Your task to perform on an android device: remove spam from my inbox in the gmail app Image 0: 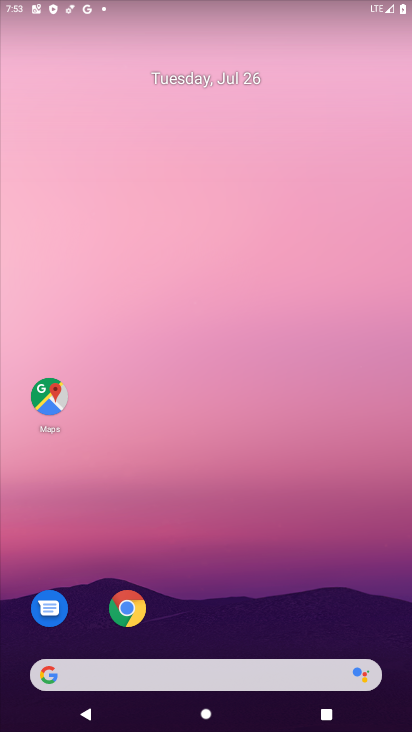
Step 0: drag from (331, 597) to (324, 267)
Your task to perform on an android device: remove spam from my inbox in the gmail app Image 1: 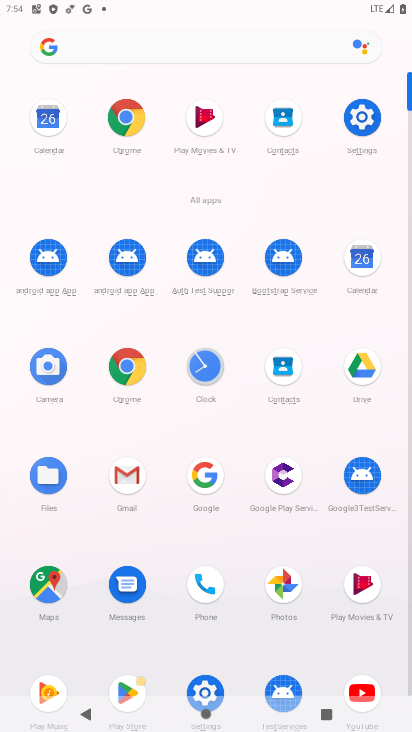
Step 1: click (123, 497)
Your task to perform on an android device: remove spam from my inbox in the gmail app Image 2: 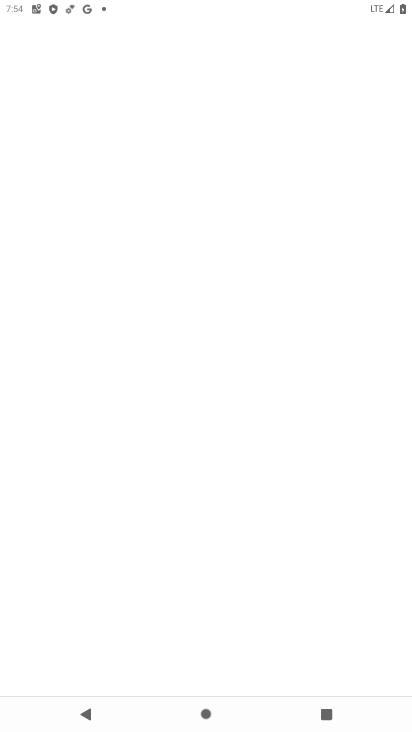
Step 2: click (125, 471)
Your task to perform on an android device: remove spam from my inbox in the gmail app Image 3: 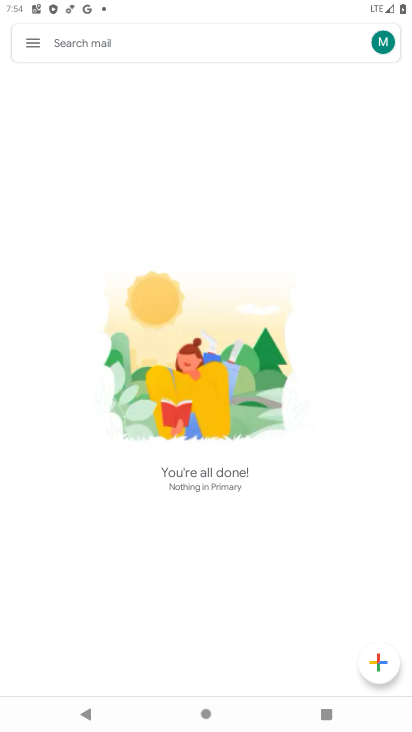
Step 3: press back button
Your task to perform on an android device: remove spam from my inbox in the gmail app Image 4: 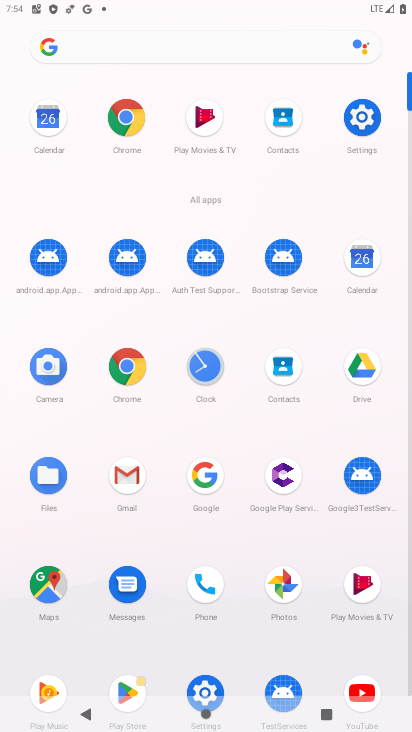
Step 4: click (125, 478)
Your task to perform on an android device: remove spam from my inbox in the gmail app Image 5: 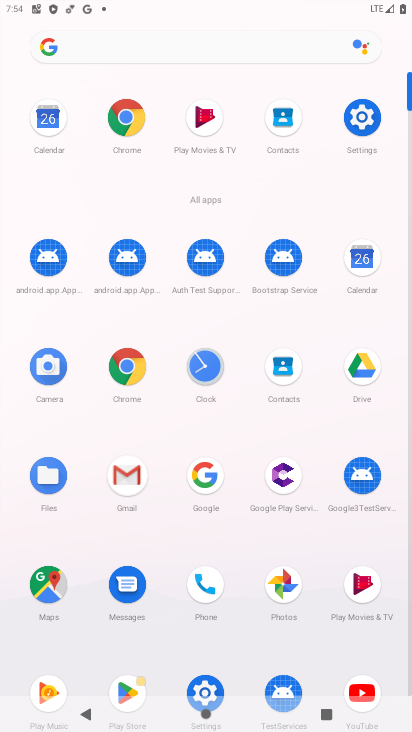
Step 5: click (125, 478)
Your task to perform on an android device: remove spam from my inbox in the gmail app Image 6: 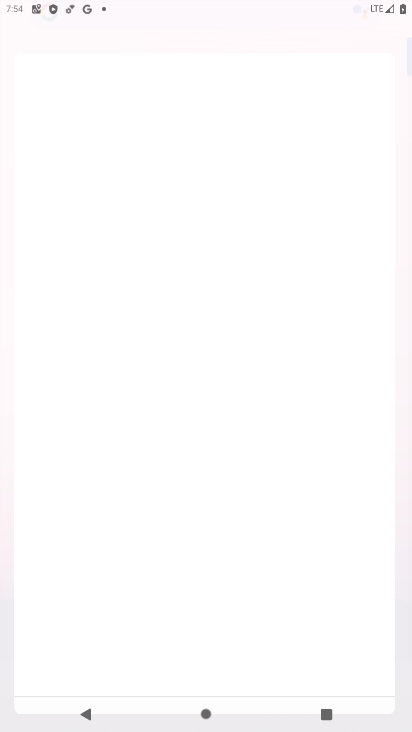
Step 6: click (130, 476)
Your task to perform on an android device: remove spam from my inbox in the gmail app Image 7: 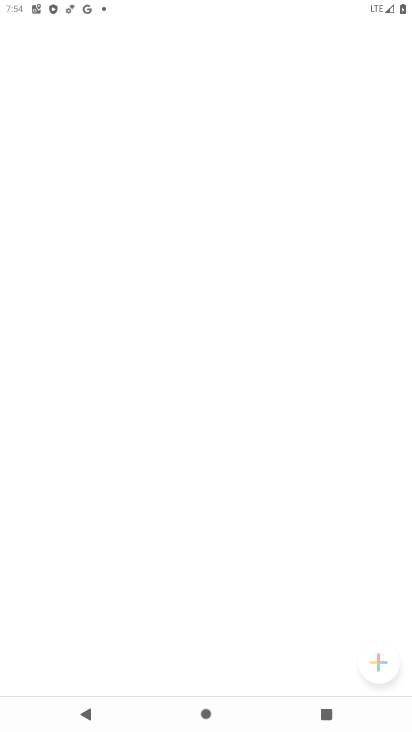
Step 7: click (132, 475)
Your task to perform on an android device: remove spam from my inbox in the gmail app Image 8: 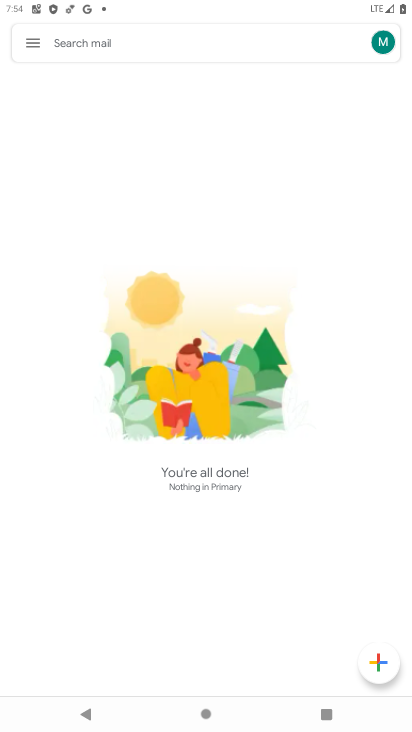
Step 8: click (32, 46)
Your task to perform on an android device: remove spam from my inbox in the gmail app Image 9: 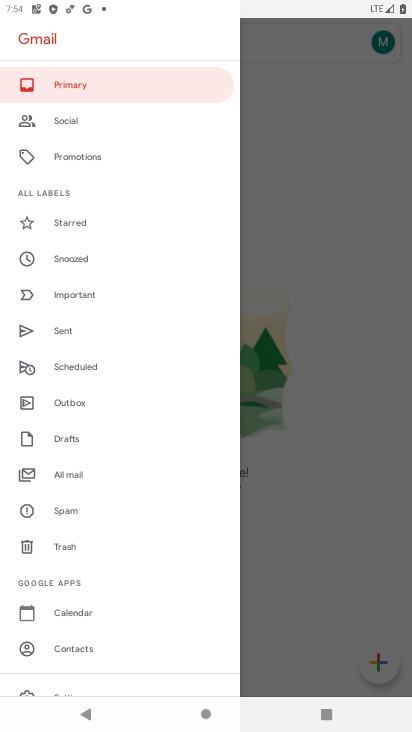
Step 9: click (302, 253)
Your task to perform on an android device: remove spam from my inbox in the gmail app Image 10: 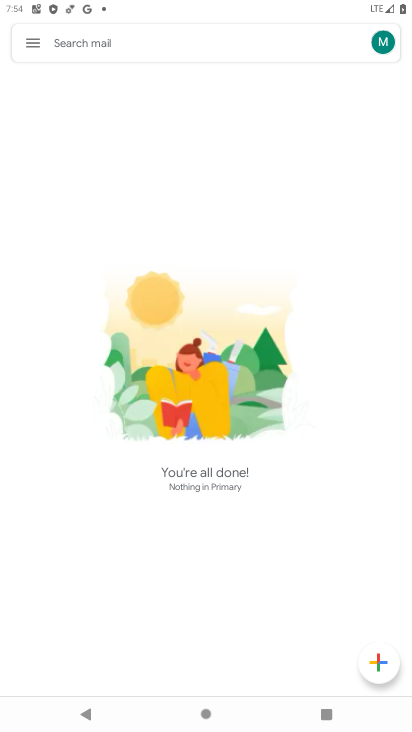
Step 10: click (21, 33)
Your task to perform on an android device: remove spam from my inbox in the gmail app Image 11: 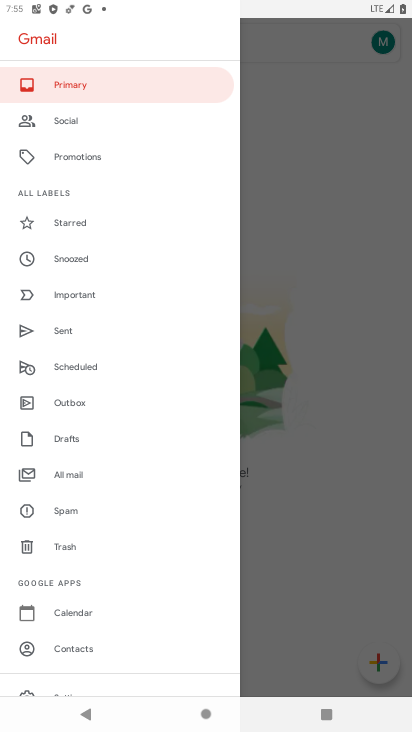
Step 11: drag from (118, 562) to (144, 118)
Your task to perform on an android device: remove spam from my inbox in the gmail app Image 12: 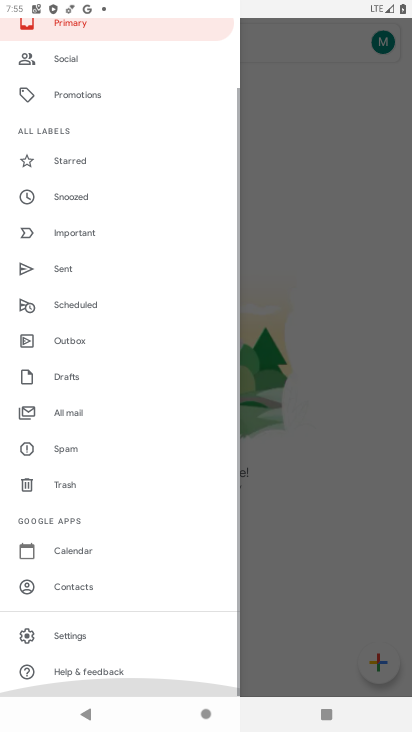
Step 12: drag from (143, 431) to (122, 159)
Your task to perform on an android device: remove spam from my inbox in the gmail app Image 13: 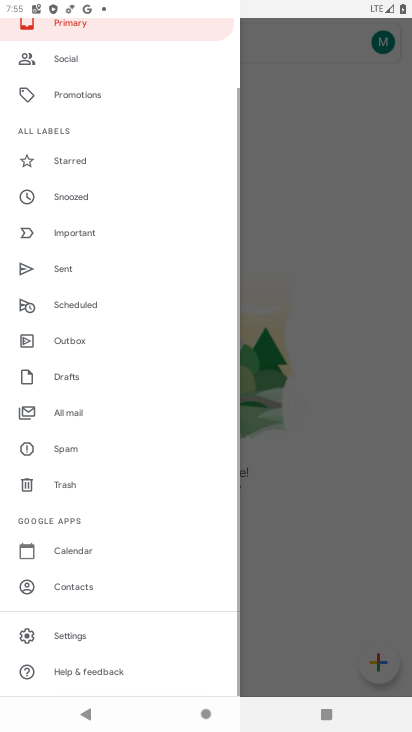
Step 13: drag from (119, 359) to (101, 84)
Your task to perform on an android device: remove spam from my inbox in the gmail app Image 14: 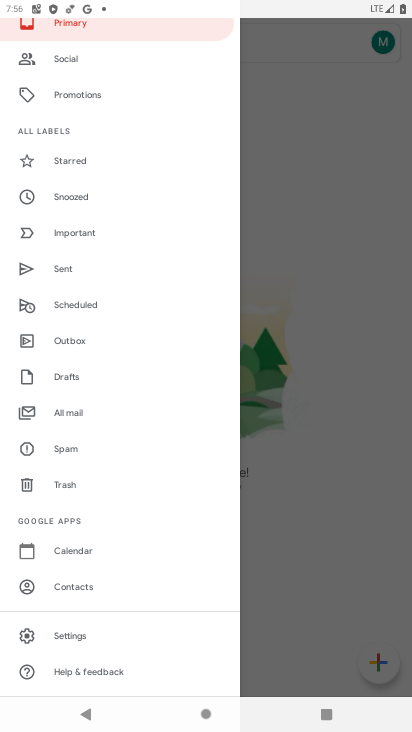
Step 14: drag from (106, 445) to (118, 165)
Your task to perform on an android device: remove spam from my inbox in the gmail app Image 15: 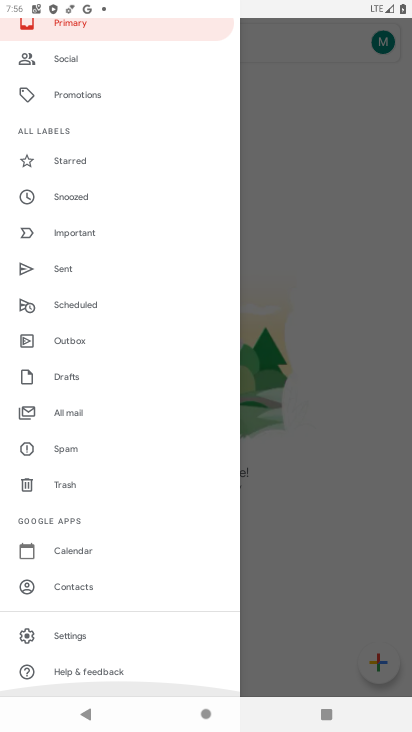
Step 15: drag from (154, 483) to (98, 131)
Your task to perform on an android device: remove spam from my inbox in the gmail app Image 16: 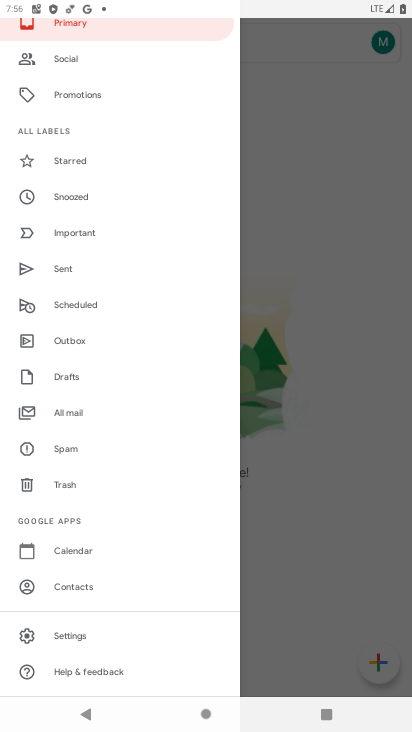
Step 16: click (63, 412)
Your task to perform on an android device: remove spam from my inbox in the gmail app Image 17: 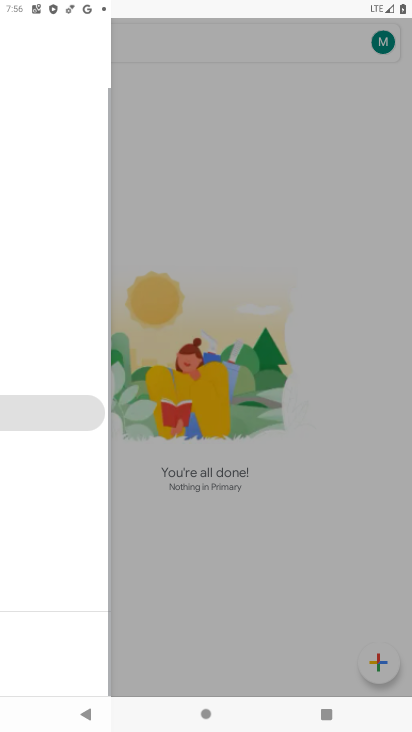
Step 17: click (70, 401)
Your task to perform on an android device: remove spam from my inbox in the gmail app Image 18: 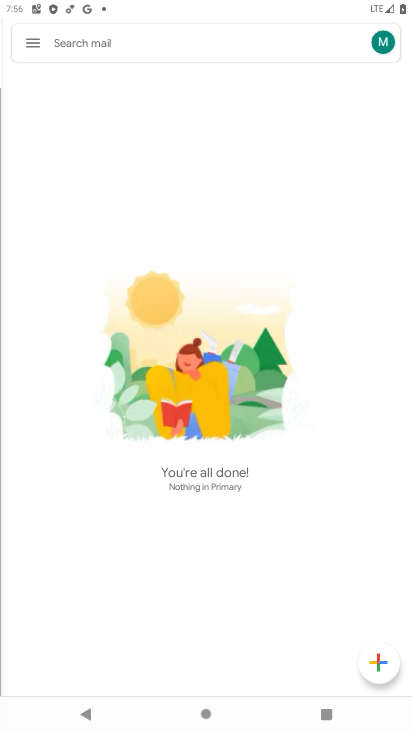
Step 18: click (70, 408)
Your task to perform on an android device: remove spam from my inbox in the gmail app Image 19: 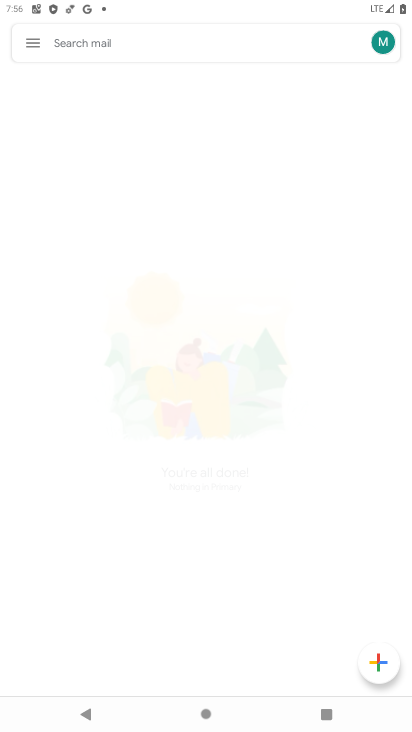
Step 19: click (70, 409)
Your task to perform on an android device: remove spam from my inbox in the gmail app Image 20: 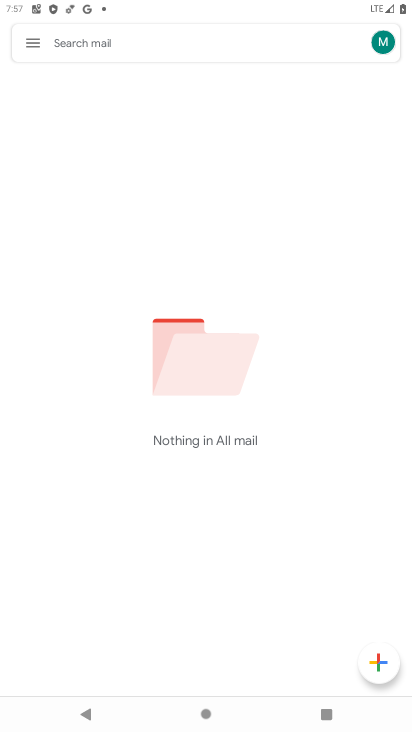
Step 20: press back button
Your task to perform on an android device: remove spam from my inbox in the gmail app Image 21: 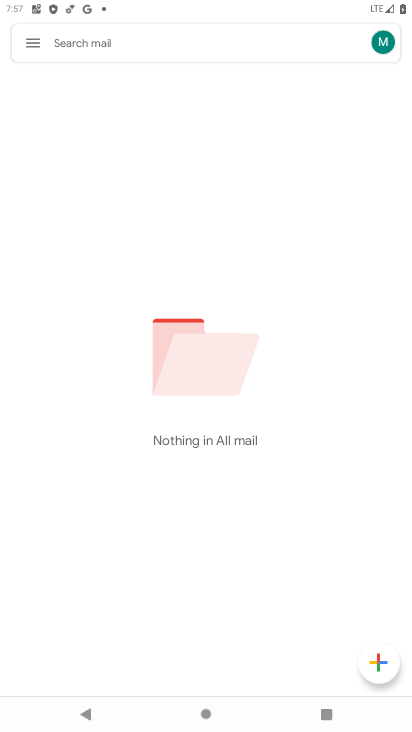
Step 21: press back button
Your task to perform on an android device: remove spam from my inbox in the gmail app Image 22: 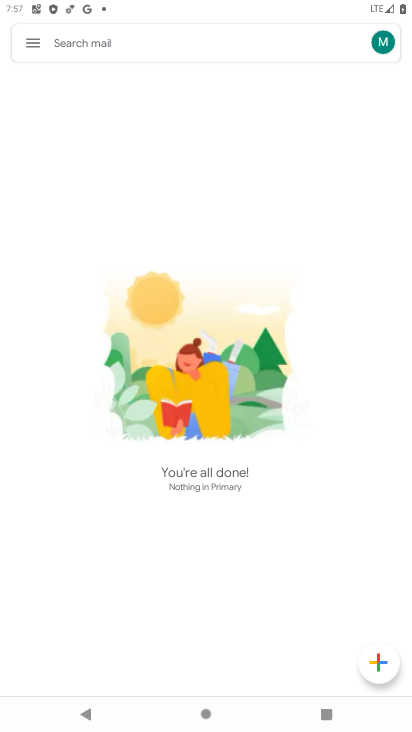
Step 22: press back button
Your task to perform on an android device: remove spam from my inbox in the gmail app Image 23: 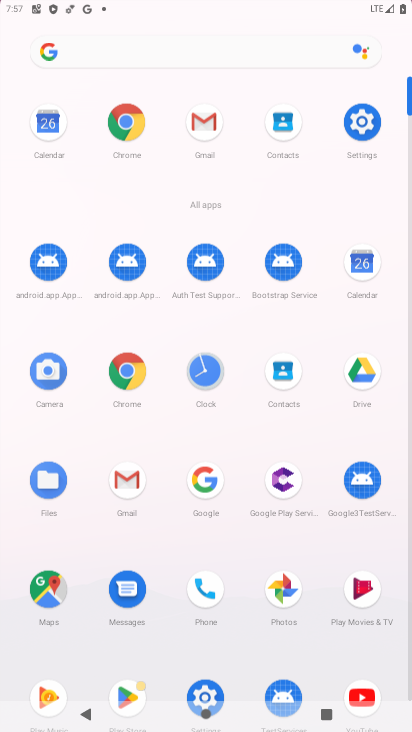
Step 23: press back button
Your task to perform on an android device: remove spam from my inbox in the gmail app Image 24: 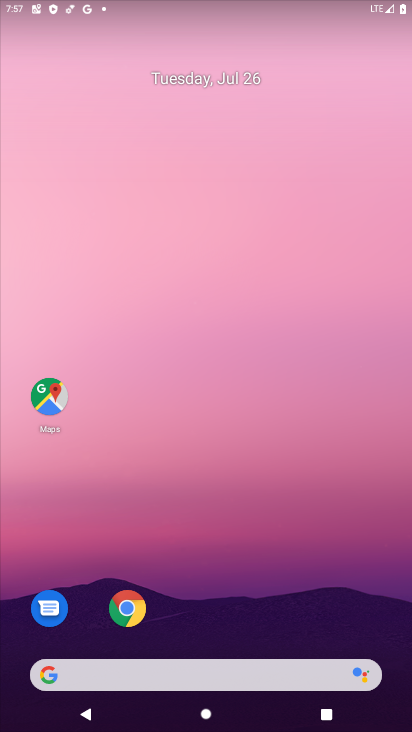
Step 24: drag from (262, 649) to (232, 206)
Your task to perform on an android device: remove spam from my inbox in the gmail app Image 25: 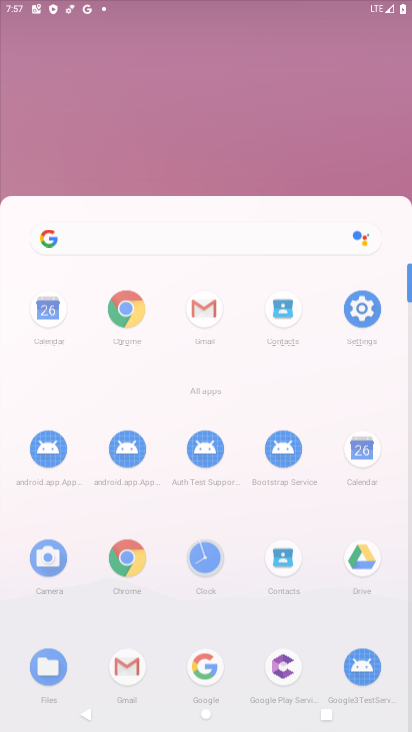
Step 25: drag from (221, 530) to (223, 155)
Your task to perform on an android device: remove spam from my inbox in the gmail app Image 26: 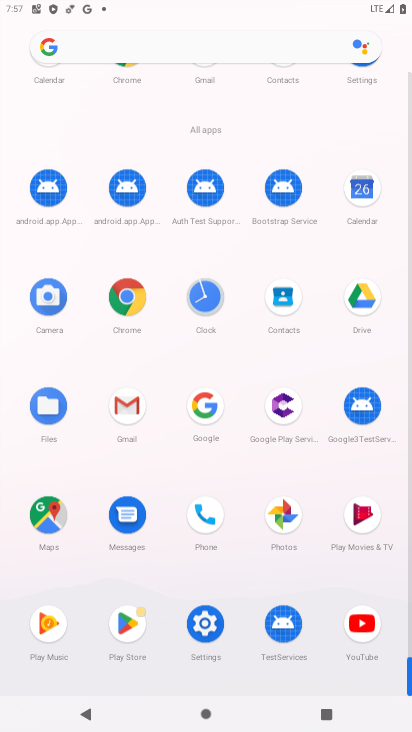
Step 26: drag from (263, 542) to (261, 91)
Your task to perform on an android device: remove spam from my inbox in the gmail app Image 27: 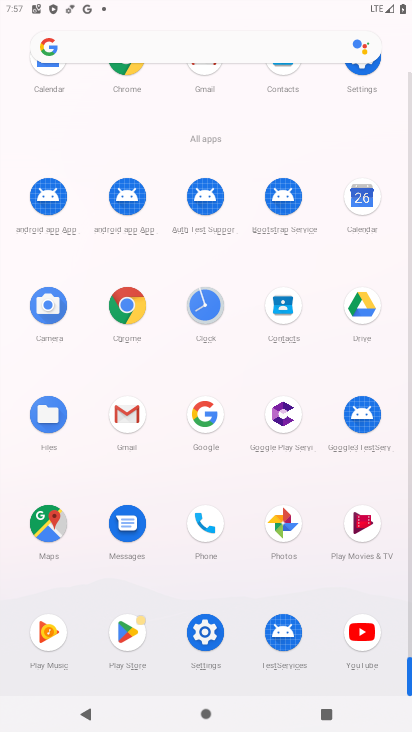
Step 27: click (127, 415)
Your task to perform on an android device: remove spam from my inbox in the gmail app Image 28: 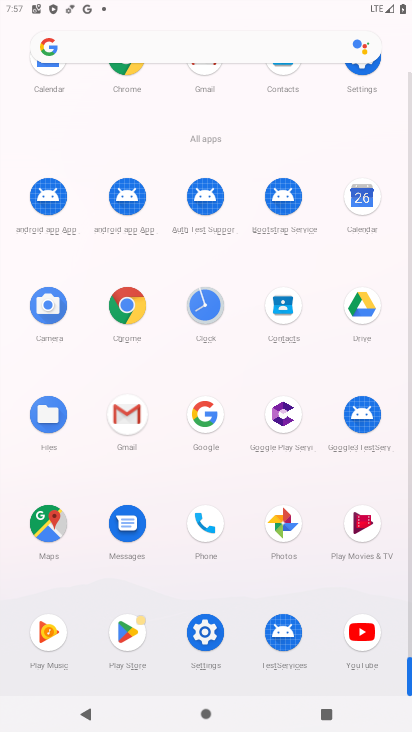
Step 28: click (125, 415)
Your task to perform on an android device: remove spam from my inbox in the gmail app Image 29: 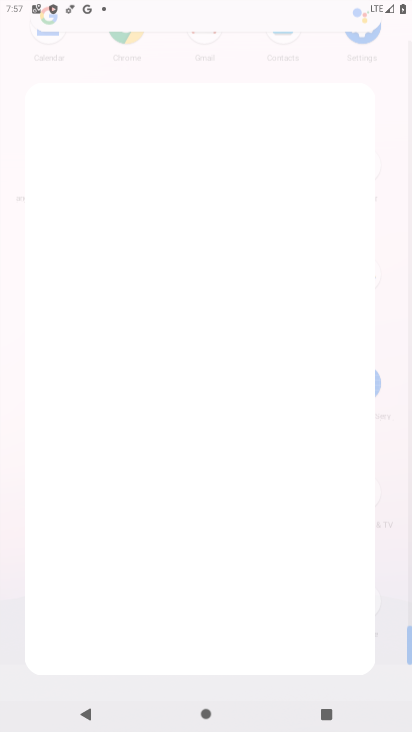
Step 29: click (125, 415)
Your task to perform on an android device: remove spam from my inbox in the gmail app Image 30: 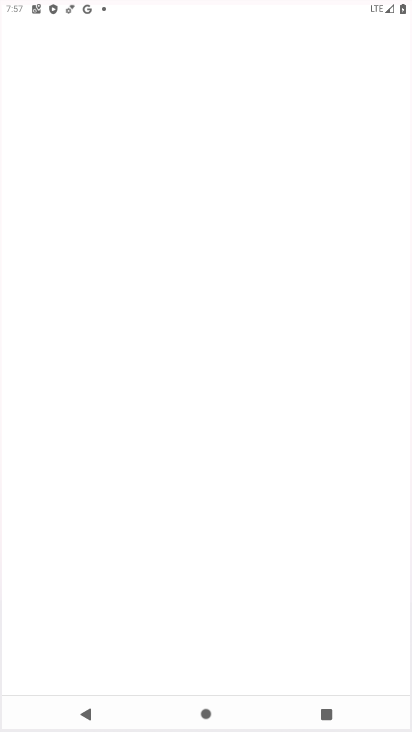
Step 30: click (124, 416)
Your task to perform on an android device: remove spam from my inbox in the gmail app Image 31: 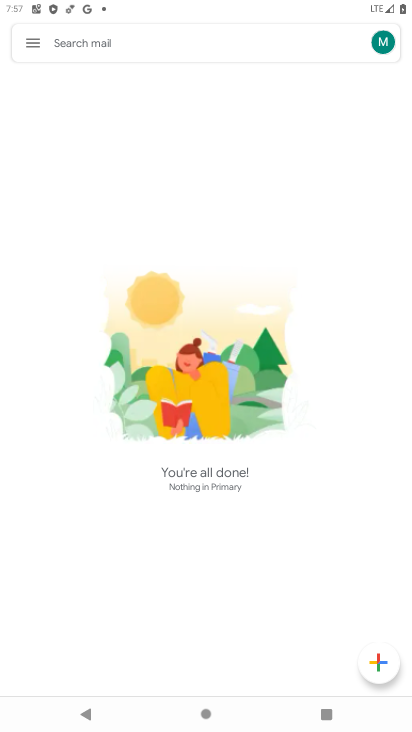
Step 31: click (34, 42)
Your task to perform on an android device: remove spam from my inbox in the gmail app Image 32: 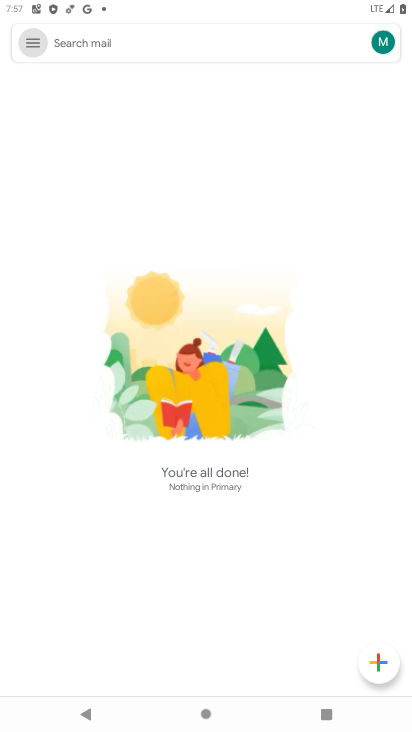
Step 32: click (33, 41)
Your task to perform on an android device: remove spam from my inbox in the gmail app Image 33: 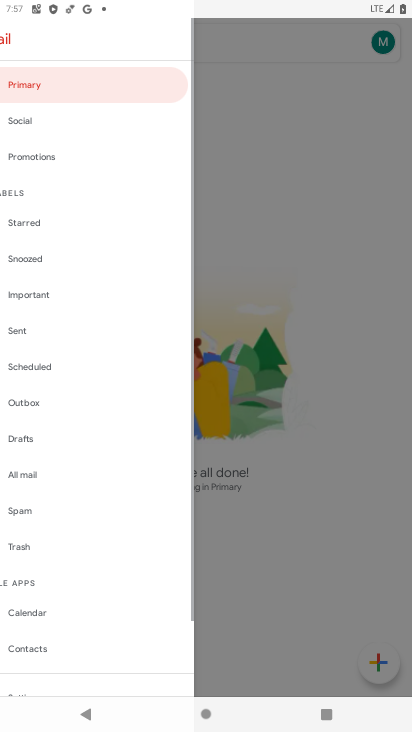
Step 33: click (33, 41)
Your task to perform on an android device: remove spam from my inbox in the gmail app Image 34: 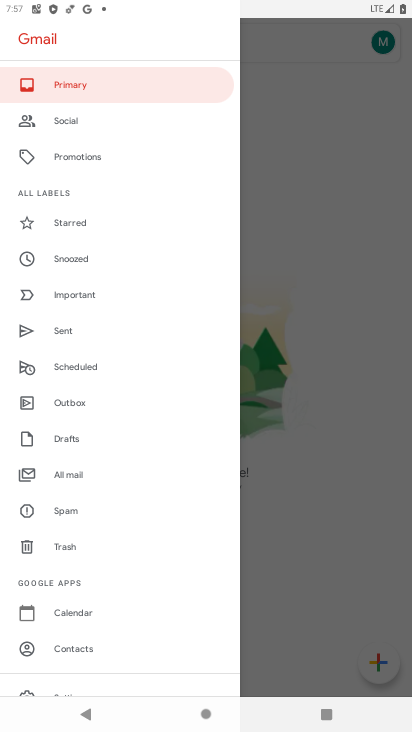
Step 34: drag from (62, 548) to (63, 336)
Your task to perform on an android device: remove spam from my inbox in the gmail app Image 35: 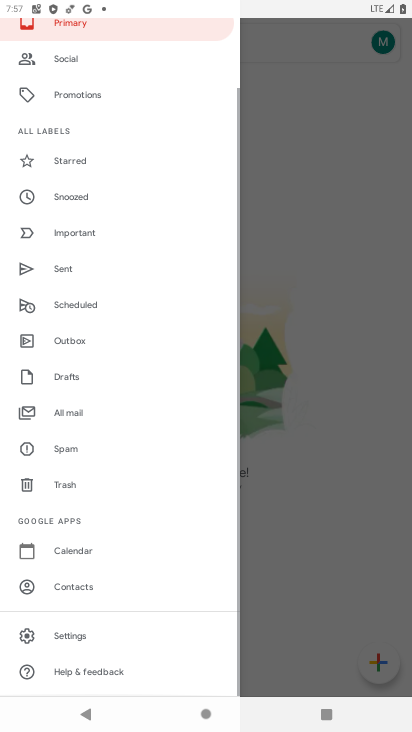
Step 35: drag from (93, 609) to (83, 374)
Your task to perform on an android device: remove spam from my inbox in the gmail app Image 36: 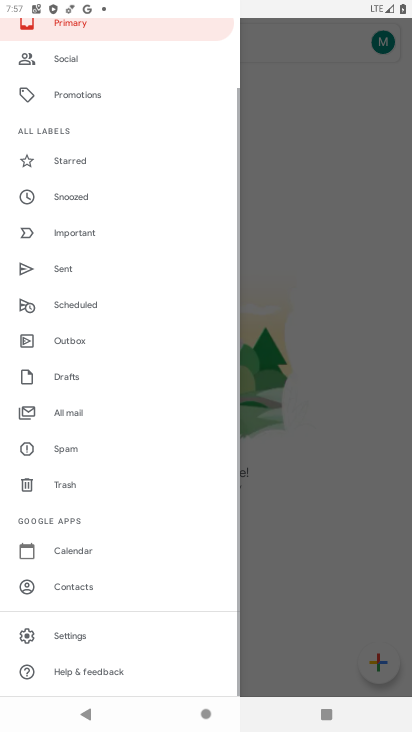
Step 36: drag from (75, 518) to (95, 284)
Your task to perform on an android device: remove spam from my inbox in the gmail app Image 37: 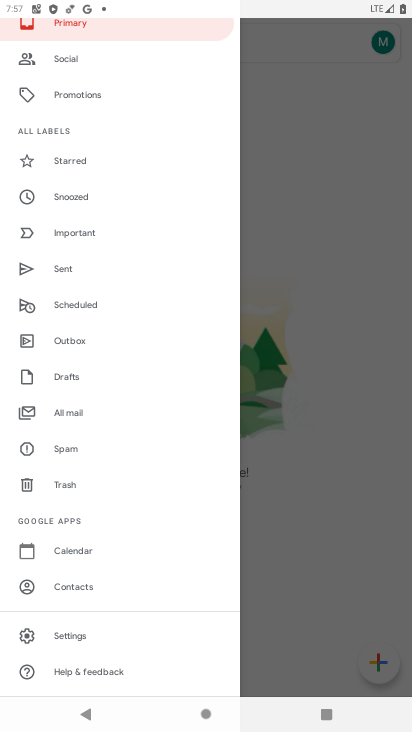
Step 37: click (72, 633)
Your task to perform on an android device: remove spam from my inbox in the gmail app Image 38: 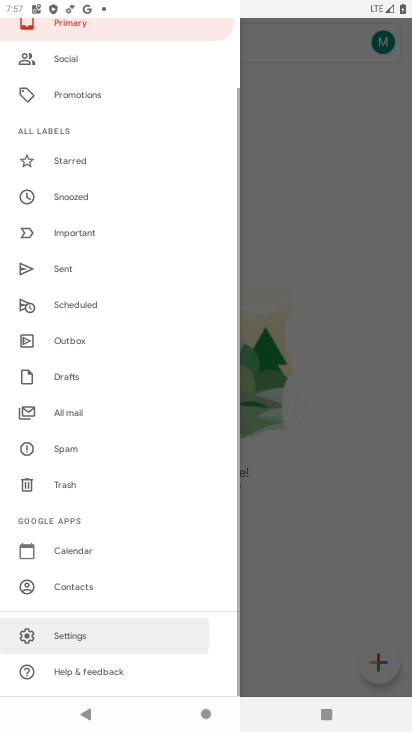
Step 38: click (72, 633)
Your task to perform on an android device: remove spam from my inbox in the gmail app Image 39: 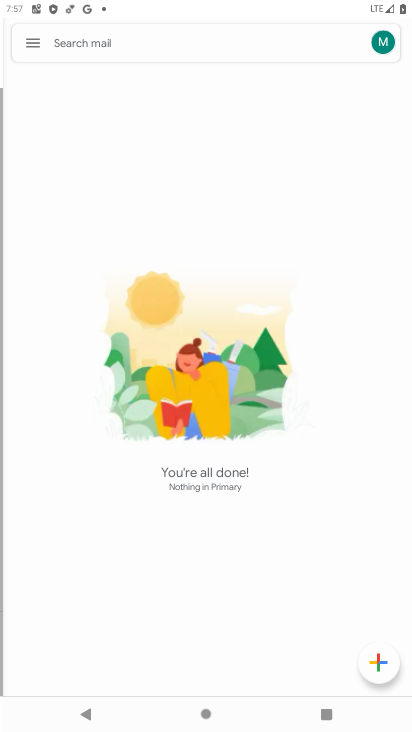
Step 39: click (70, 633)
Your task to perform on an android device: remove spam from my inbox in the gmail app Image 40: 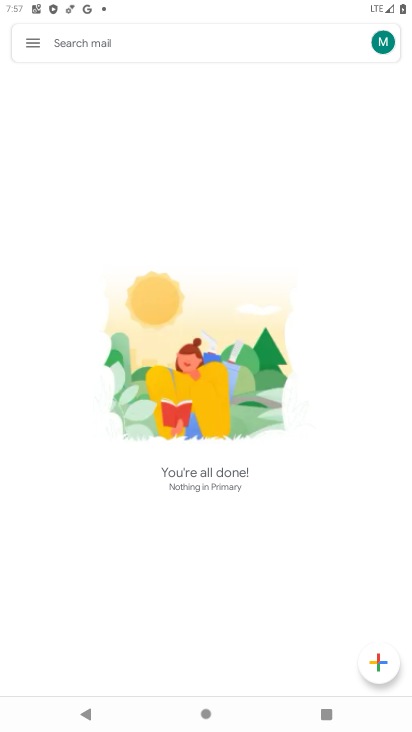
Step 40: click (70, 633)
Your task to perform on an android device: remove spam from my inbox in the gmail app Image 41: 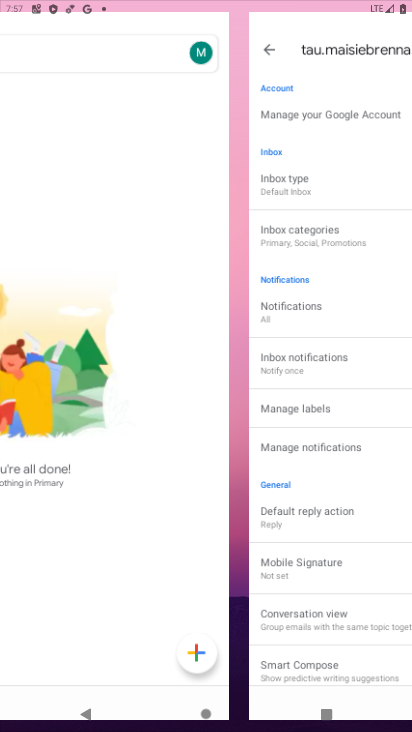
Step 41: click (70, 633)
Your task to perform on an android device: remove spam from my inbox in the gmail app Image 42: 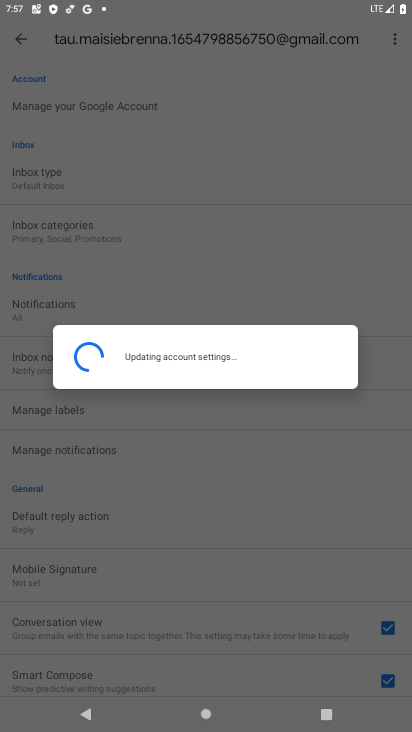
Step 42: click (180, 219)
Your task to perform on an android device: remove spam from my inbox in the gmail app Image 43: 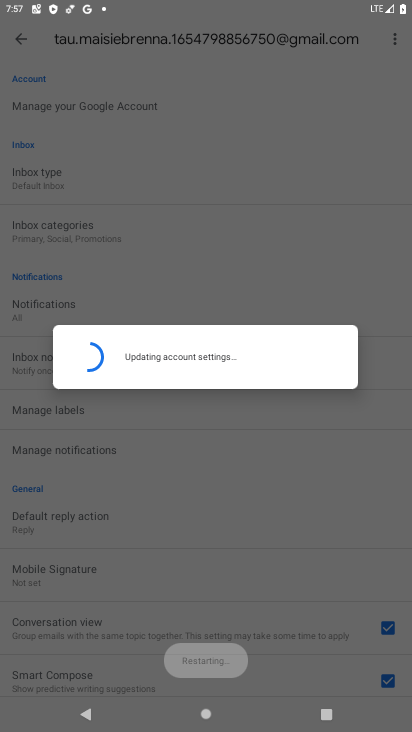
Step 43: click (182, 232)
Your task to perform on an android device: remove spam from my inbox in the gmail app Image 44: 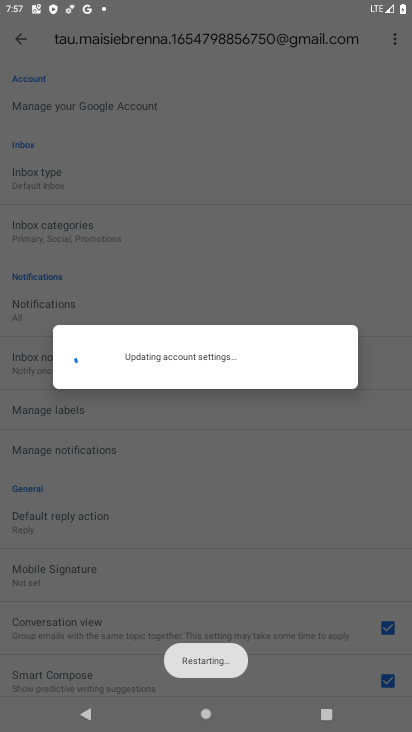
Step 44: click (182, 232)
Your task to perform on an android device: remove spam from my inbox in the gmail app Image 45: 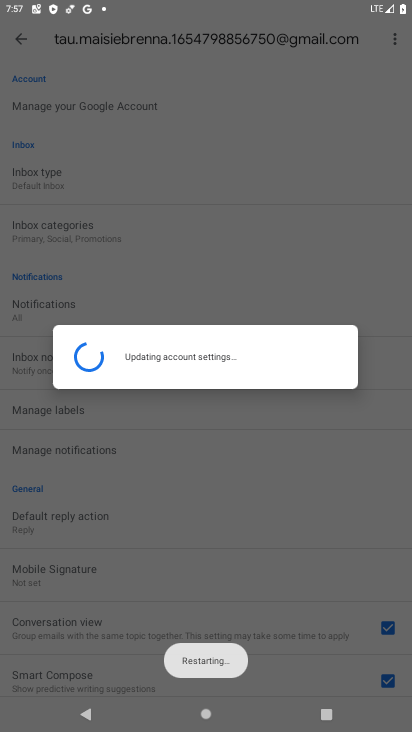
Step 45: click (203, 237)
Your task to perform on an android device: remove spam from my inbox in the gmail app Image 46: 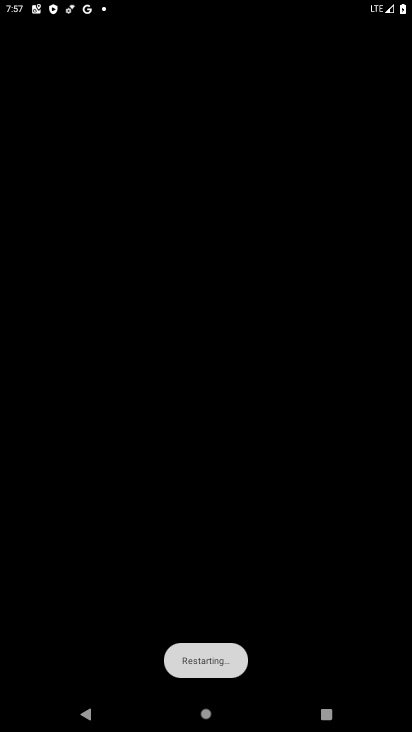
Step 46: click (203, 241)
Your task to perform on an android device: remove spam from my inbox in the gmail app Image 47: 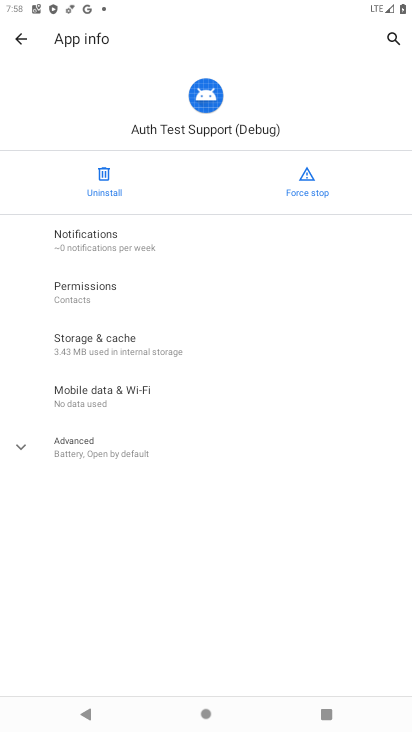
Step 47: click (20, 38)
Your task to perform on an android device: remove spam from my inbox in the gmail app Image 48: 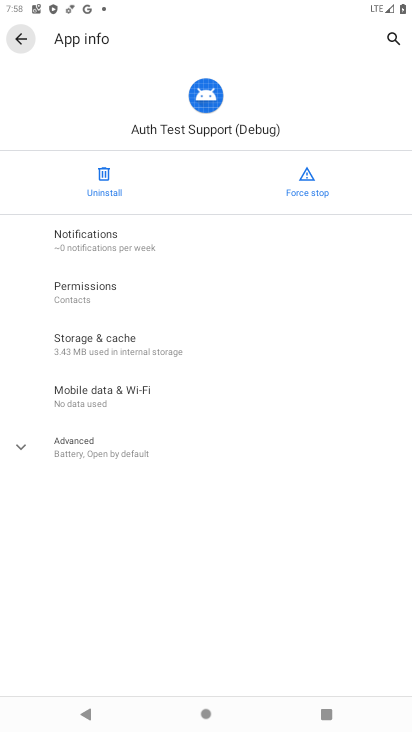
Step 48: click (19, 39)
Your task to perform on an android device: remove spam from my inbox in the gmail app Image 49: 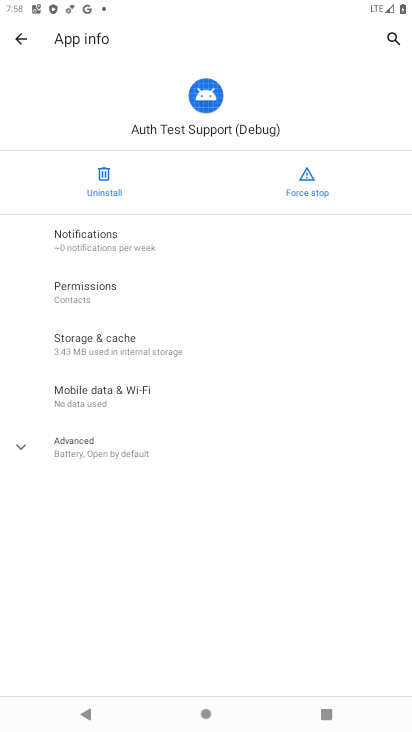
Step 49: click (19, 39)
Your task to perform on an android device: remove spam from my inbox in the gmail app Image 50: 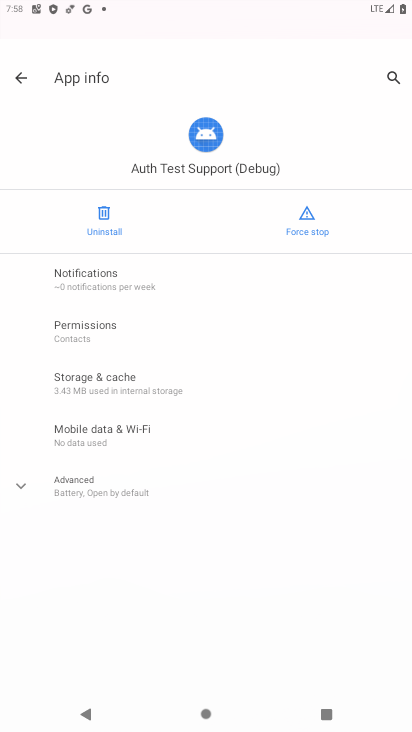
Step 50: click (19, 39)
Your task to perform on an android device: remove spam from my inbox in the gmail app Image 51: 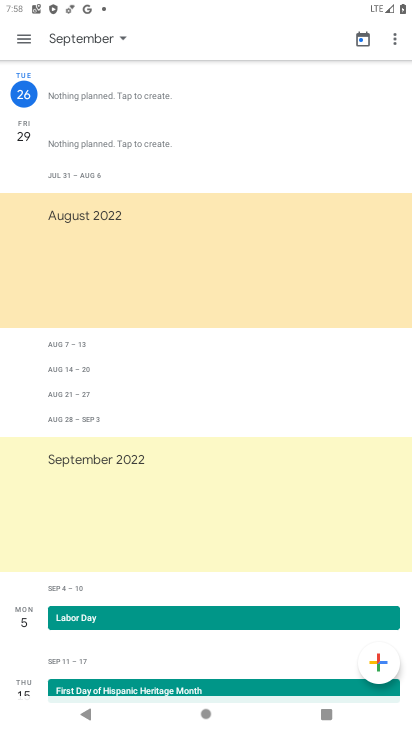
Step 51: press back button
Your task to perform on an android device: remove spam from my inbox in the gmail app Image 52: 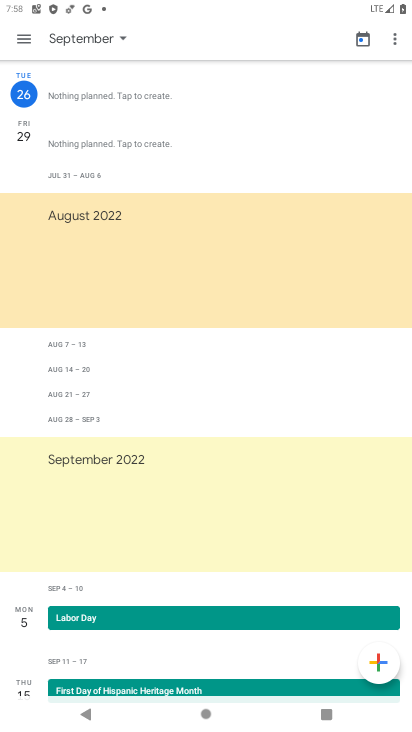
Step 52: press back button
Your task to perform on an android device: remove spam from my inbox in the gmail app Image 53: 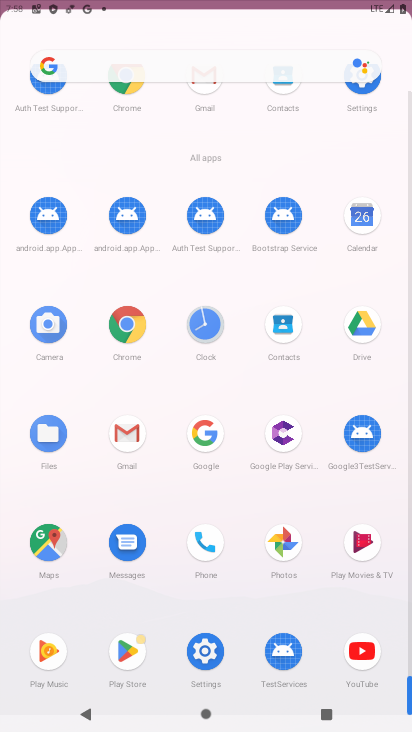
Step 53: press back button
Your task to perform on an android device: remove spam from my inbox in the gmail app Image 54: 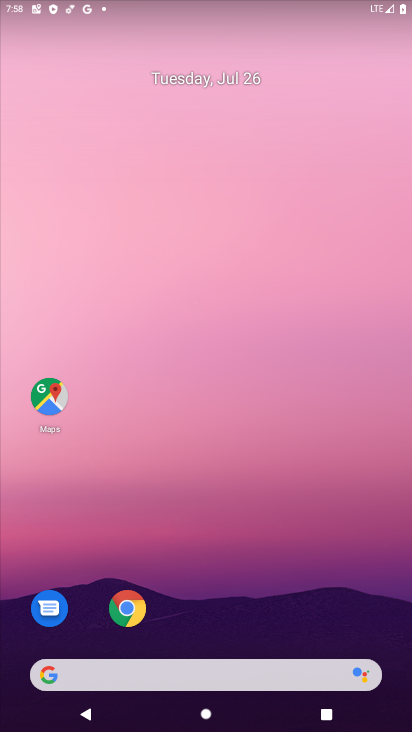
Step 54: drag from (225, 444) to (218, 64)
Your task to perform on an android device: remove spam from my inbox in the gmail app Image 55: 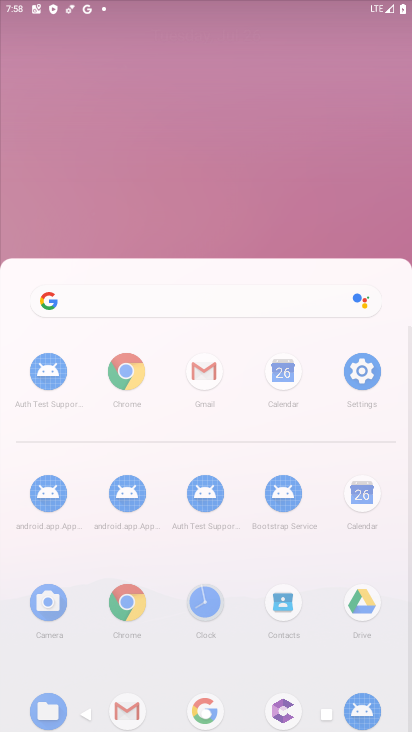
Step 55: drag from (227, 596) to (130, 103)
Your task to perform on an android device: remove spam from my inbox in the gmail app Image 56: 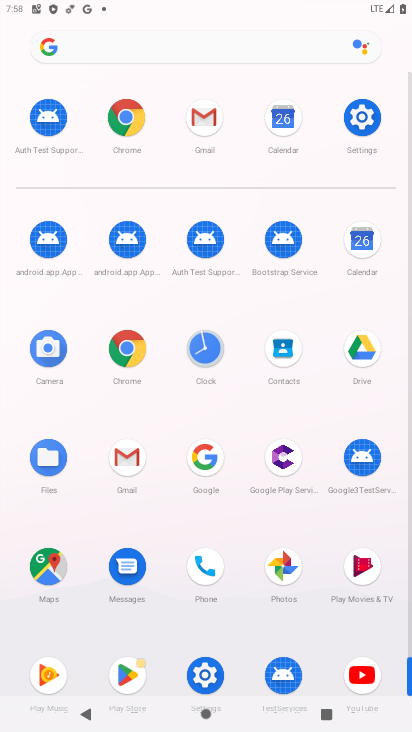
Step 56: click (132, 456)
Your task to perform on an android device: remove spam from my inbox in the gmail app Image 57: 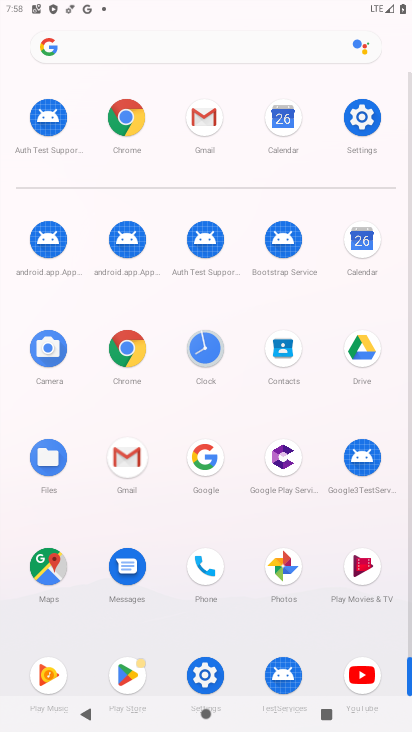
Step 57: click (132, 456)
Your task to perform on an android device: remove spam from my inbox in the gmail app Image 58: 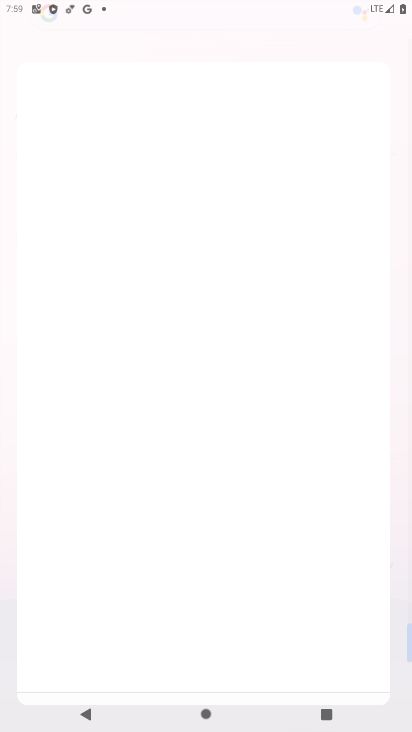
Step 58: click (131, 461)
Your task to perform on an android device: remove spam from my inbox in the gmail app Image 59: 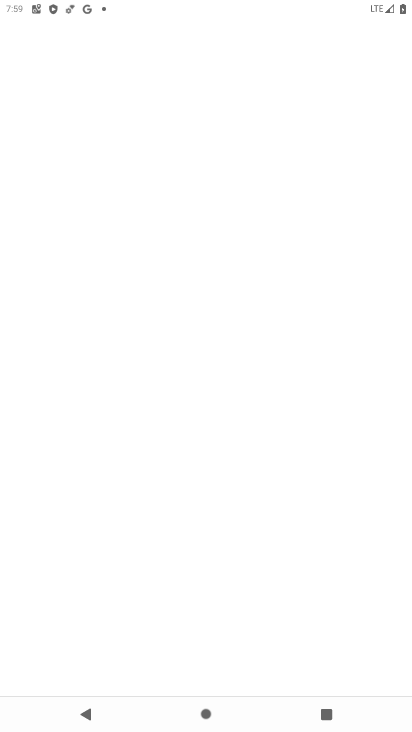
Step 59: click (131, 461)
Your task to perform on an android device: remove spam from my inbox in the gmail app Image 60: 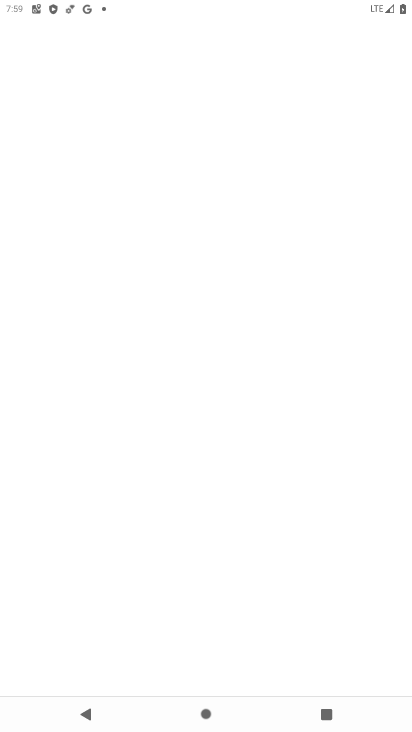
Step 60: click (131, 461)
Your task to perform on an android device: remove spam from my inbox in the gmail app Image 61: 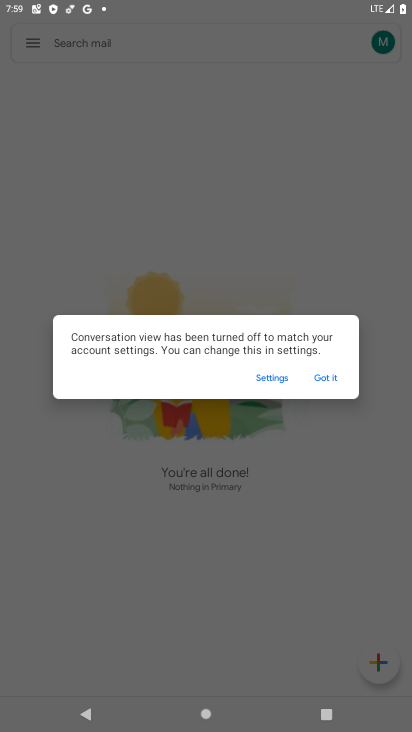
Step 61: click (326, 381)
Your task to perform on an android device: remove spam from my inbox in the gmail app Image 62: 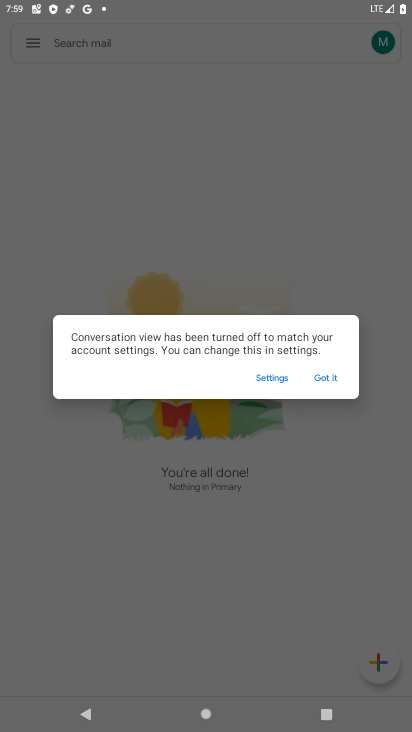
Step 62: click (326, 381)
Your task to perform on an android device: remove spam from my inbox in the gmail app Image 63: 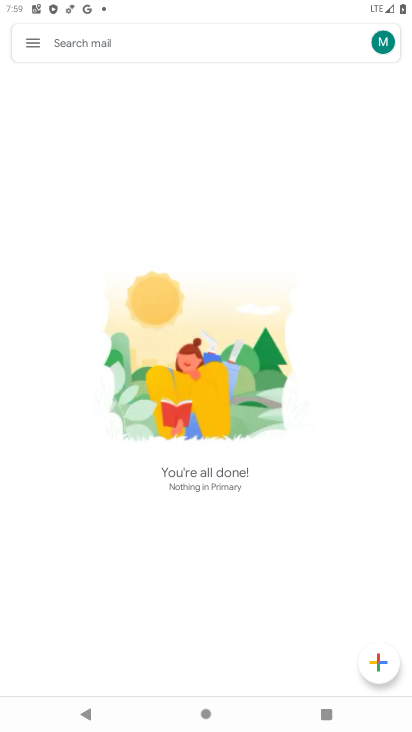
Step 63: click (327, 379)
Your task to perform on an android device: remove spam from my inbox in the gmail app Image 64: 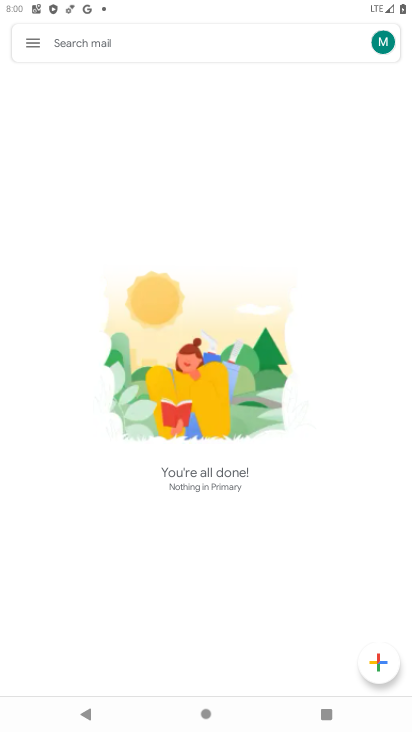
Step 64: click (21, 44)
Your task to perform on an android device: remove spam from my inbox in the gmail app Image 65: 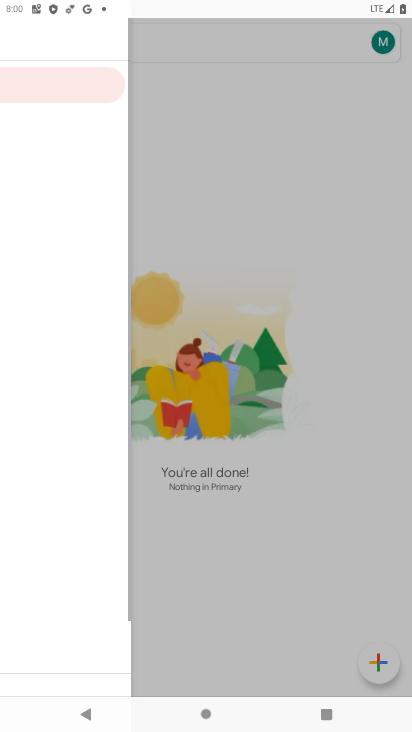
Step 65: click (25, 42)
Your task to perform on an android device: remove spam from my inbox in the gmail app Image 66: 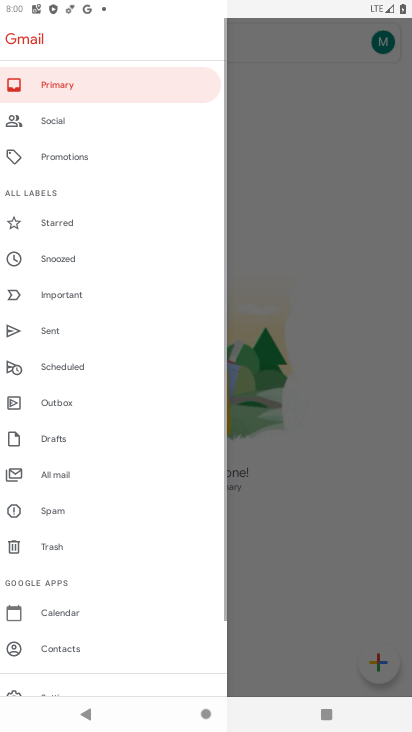
Step 66: click (26, 42)
Your task to perform on an android device: remove spam from my inbox in the gmail app Image 67: 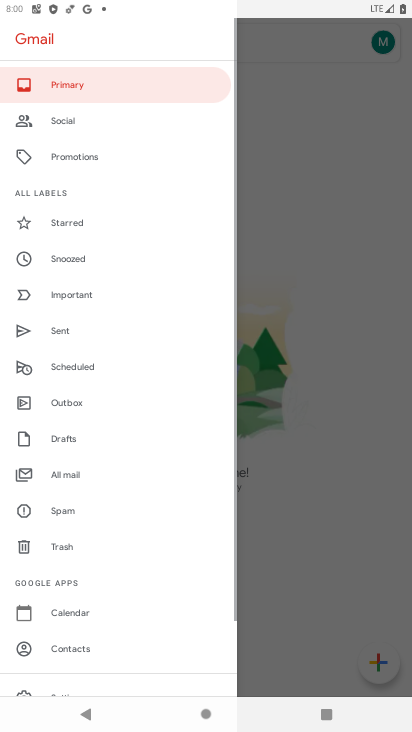
Step 67: click (27, 41)
Your task to perform on an android device: remove spam from my inbox in the gmail app Image 68: 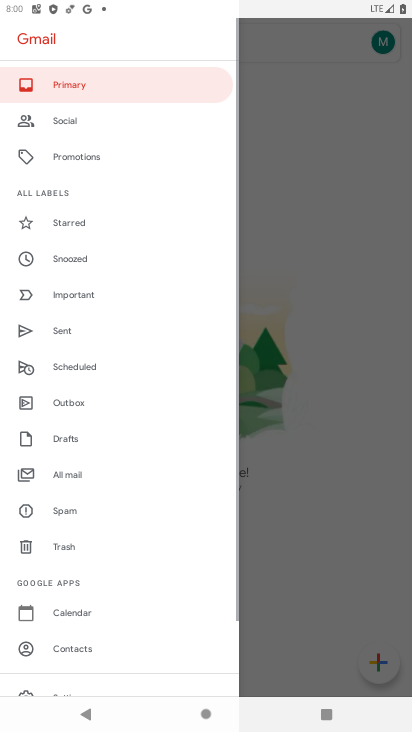
Step 68: click (27, 41)
Your task to perform on an android device: remove spam from my inbox in the gmail app Image 69: 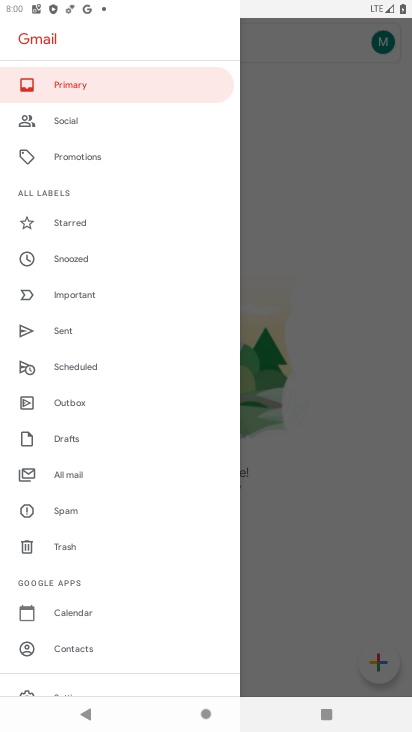
Step 69: click (60, 469)
Your task to perform on an android device: remove spam from my inbox in the gmail app Image 70: 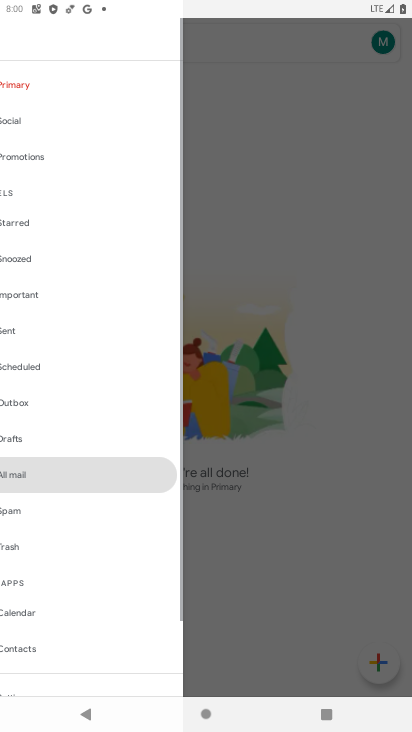
Step 70: click (69, 466)
Your task to perform on an android device: remove spam from my inbox in the gmail app Image 71: 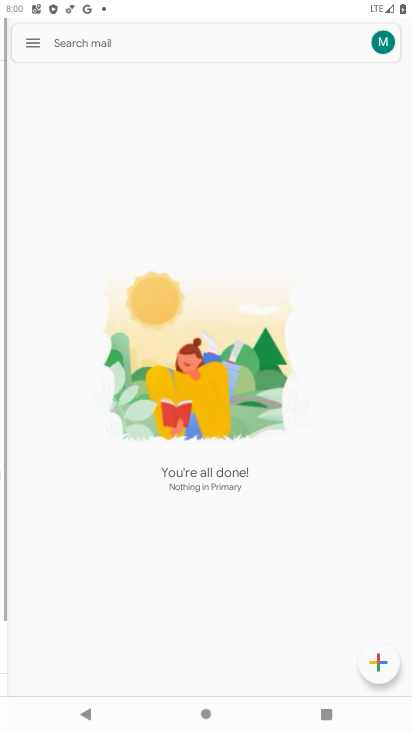
Step 71: click (70, 466)
Your task to perform on an android device: remove spam from my inbox in the gmail app Image 72: 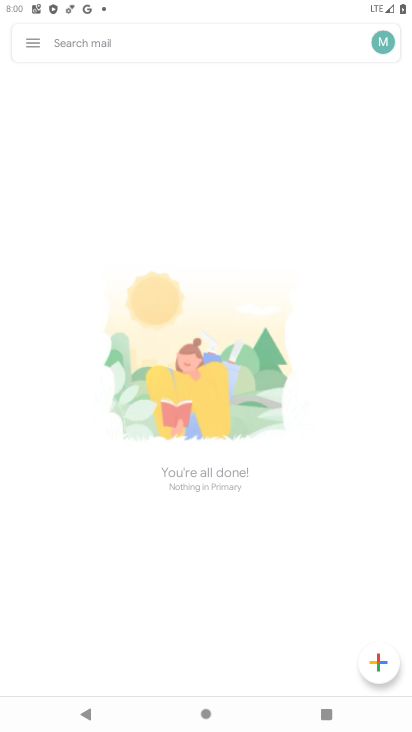
Step 72: click (76, 468)
Your task to perform on an android device: remove spam from my inbox in the gmail app Image 73: 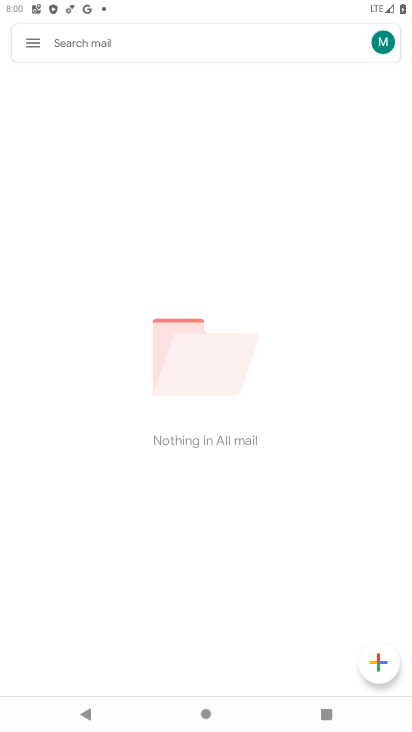
Step 73: click (77, 472)
Your task to perform on an android device: remove spam from my inbox in the gmail app Image 74: 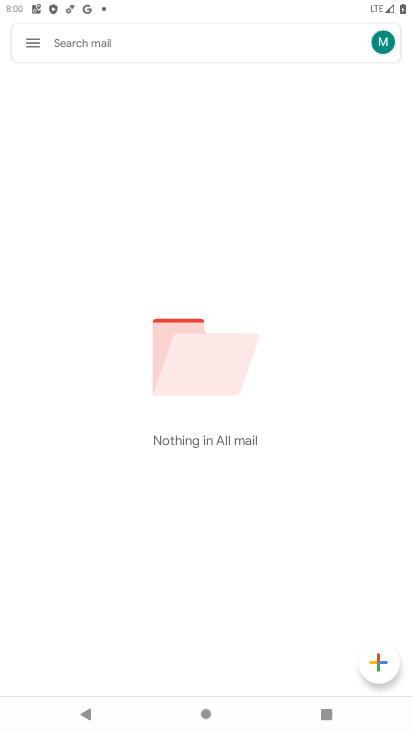
Step 74: click (41, 44)
Your task to perform on an android device: remove spam from my inbox in the gmail app Image 75: 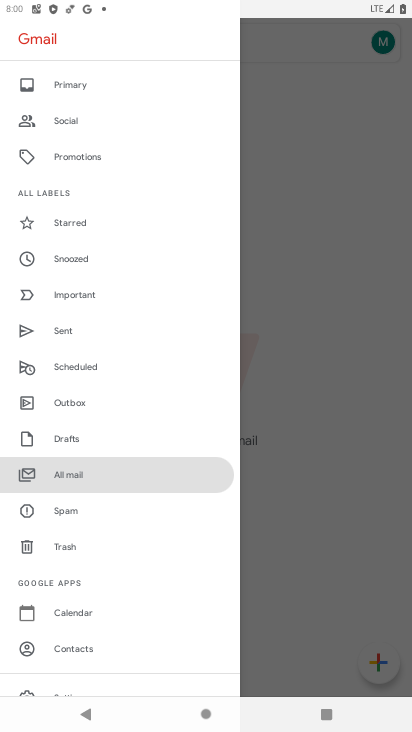
Step 75: click (71, 505)
Your task to perform on an android device: remove spam from my inbox in the gmail app Image 76: 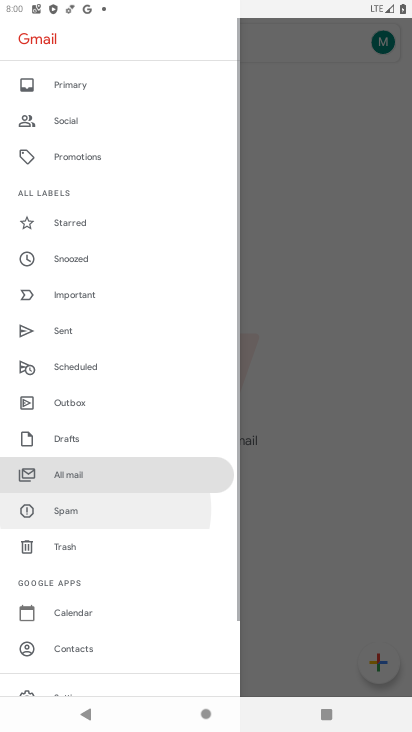
Step 76: click (70, 504)
Your task to perform on an android device: remove spam from my inbox in the gmail app Image 77: 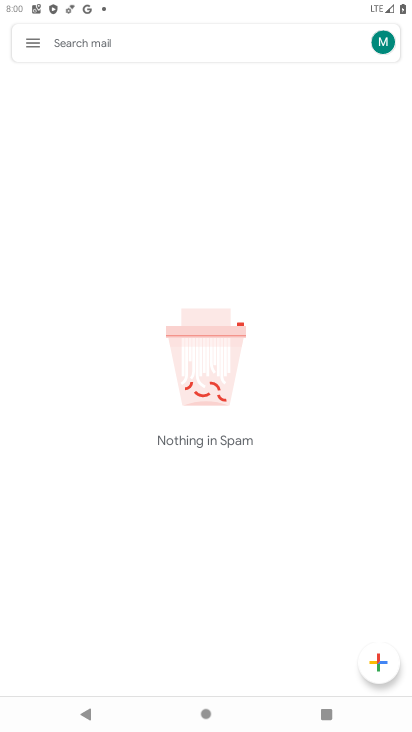
Step 77: task complete